Your task to perform on an android device: Add "usb-c to usb-a" to the cart on target Image 0: 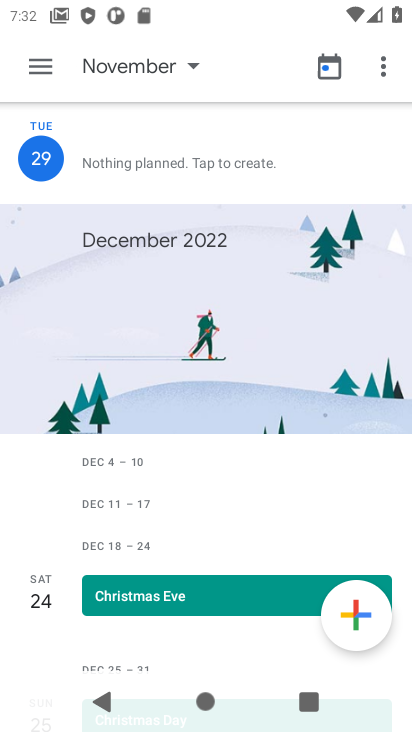
Step 0: press home button
Your task to perform on an android device: Add "usb-c to usb-a" to the cart on target Image 1: 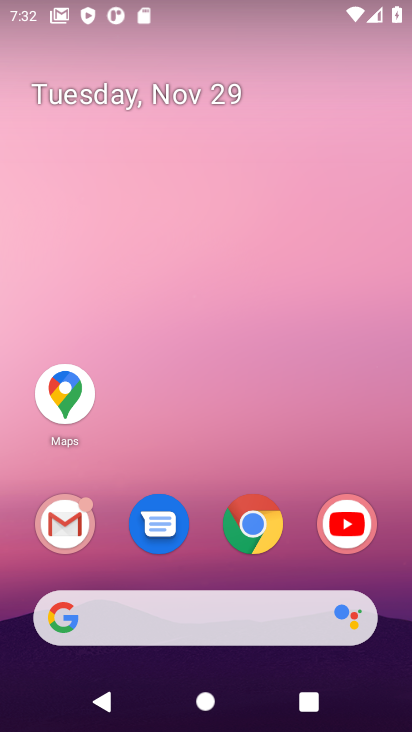
Step 1: click (259, 523)
Your task to perform on an android device: Add "usb-c to usb-a" to the cart on target Image 2: 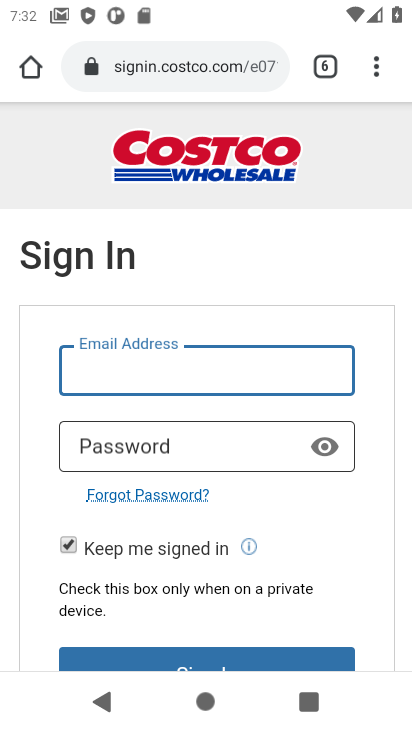
Step 2: click (153, 66)
Your task to perform on an android device: Add "usb-c to usb-a" to the cart on target Image 3: 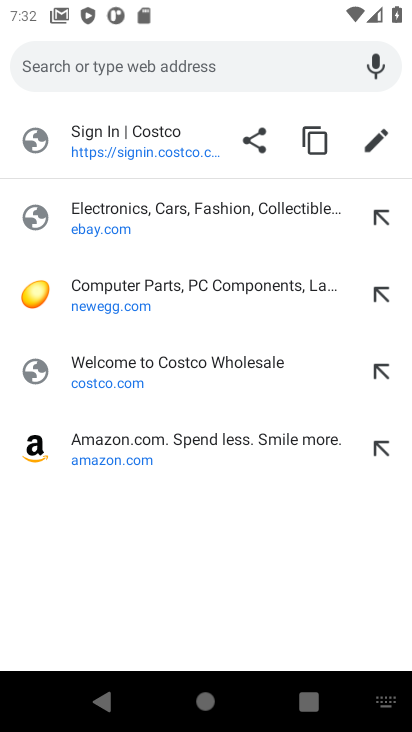
Step 3: type "target.com"
Your task to perform on an android device: Add "usb-c to usb-a" to the cart on target Image 4: 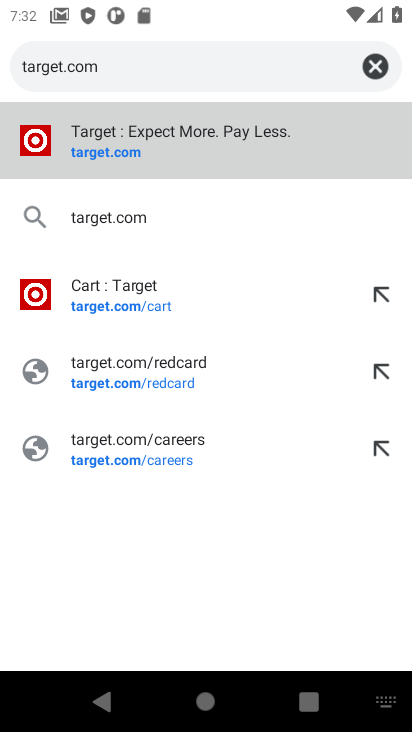
Step 4: click (80, 149)
Your task to perform on an android device: Add "usb-c to usb-a" to the cart on target Image 5: 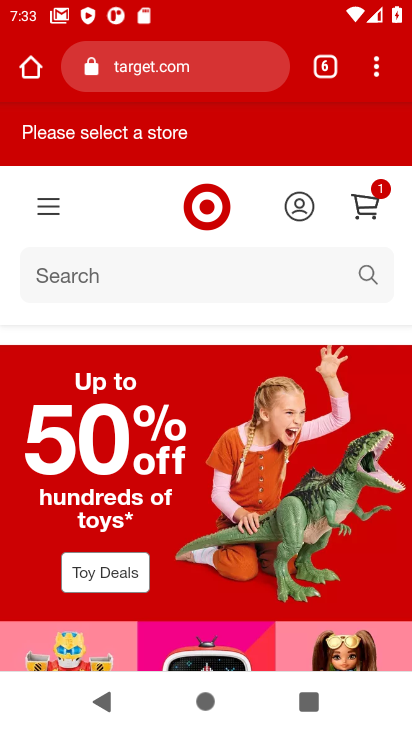
Step 5: click (83, 269)
Your task to perform on an android device: Add "usb-c to usb-a" to the cart on target Image 6: 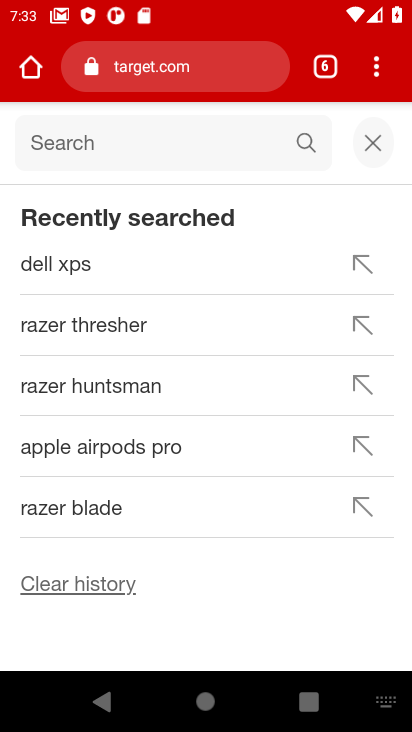
Step 6: type "usb-c to usb-a"
Your task to perform on an android device: Add "usb-c to usb-a" to the cart on target Image 7: 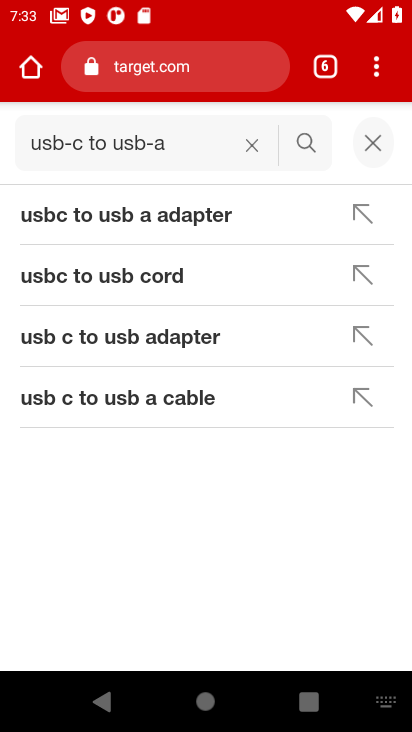
Step 7: click (306, 136)
Your task to perform on an android device: Add "usb-c to usb-a" to the cart on target Image 8: 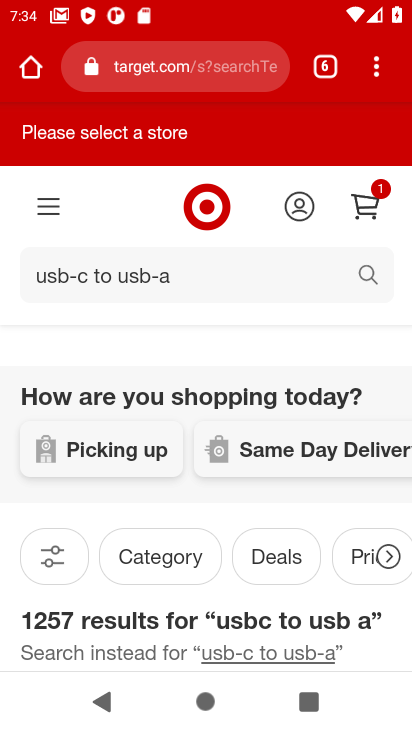
Step 8: drag from (194, 327) to (178, 181)
Your task to perform on an android device: Add "usb-c to usb-a" to the cart on target Image 9: 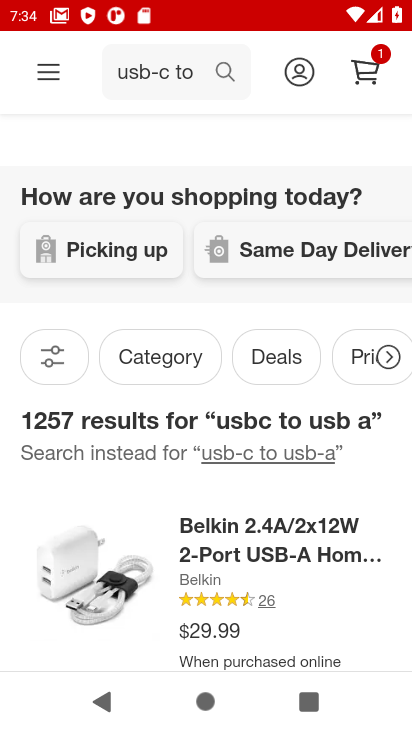
Step 9: drag from (243, 506) to (237, 344)
Your task to perform on an android device: Add "usb-c to usb-a" to the cart on target Image 10: 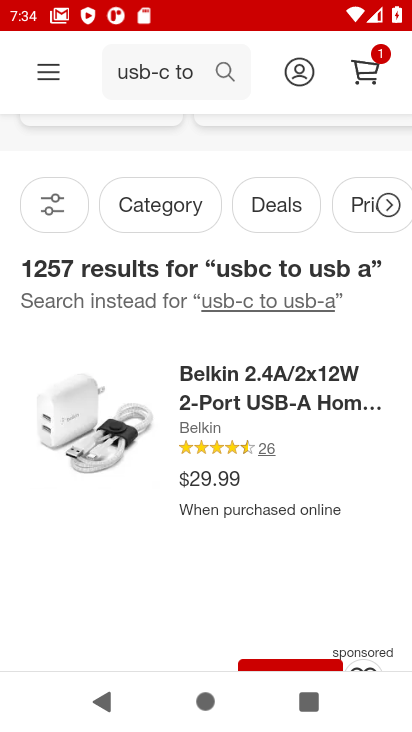
Step 10: drag from (220, 473) to (211, 303)
Your task to perform on an android device: Add "usb-c to usb-a" to the cart on target Image 11: 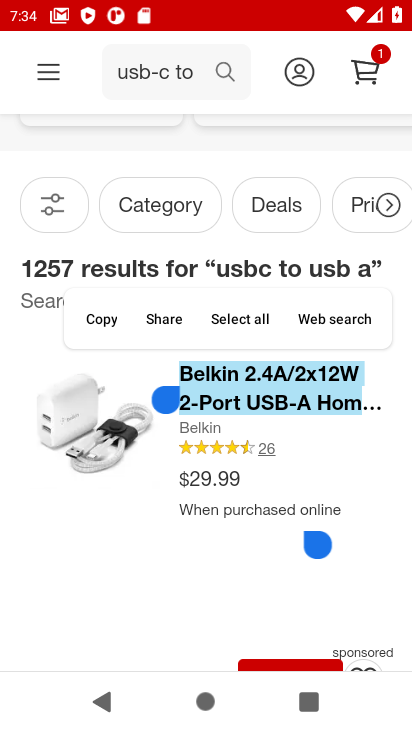
Step 11: drag from (374, 487) to (355, 198)
Your task to perform on an android device: Add "usb-c to usb-a" to the cart on target Image 12: 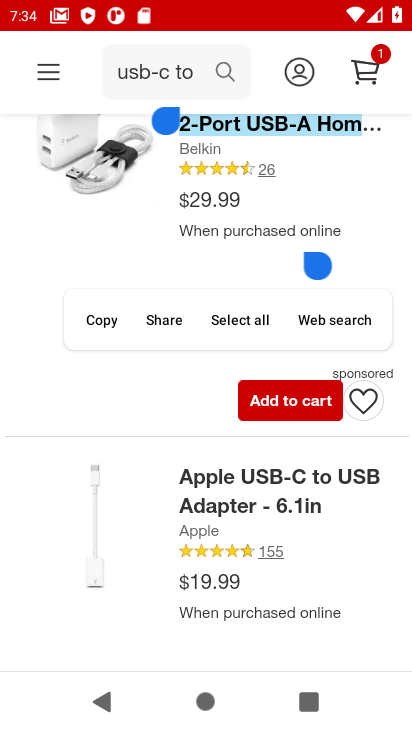
Step 12: drag from (322, 506) to (307, 325)
Your task to perform on an android device: Add "usb-c to usb-a" to the cart on target Image 13: 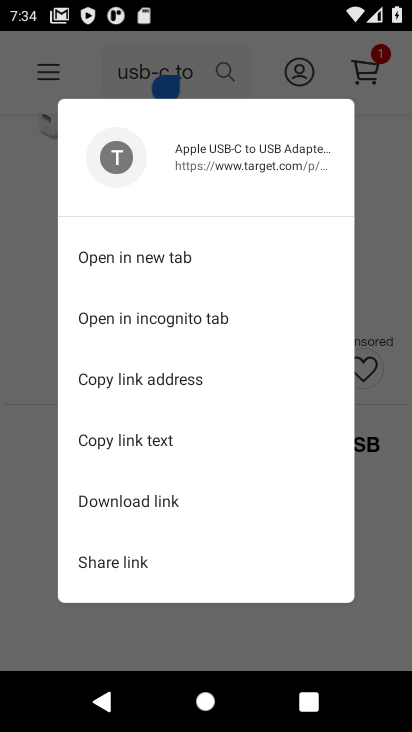
Step 13: click (369, 605)
Your task to perform on an android device: Add "usb-c to usb-a" to the cart on target Image 14: 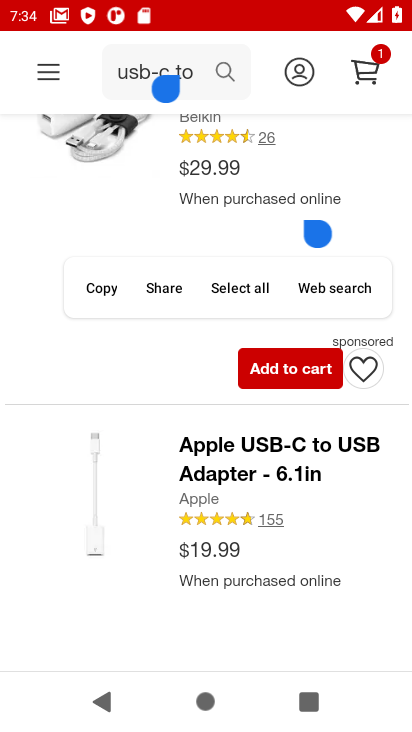
Step 14: drag from (350, 404) to (332, 136)
Your task to perform on an android device: Add "usb-c to usb-a" to the cart on target Image 15: 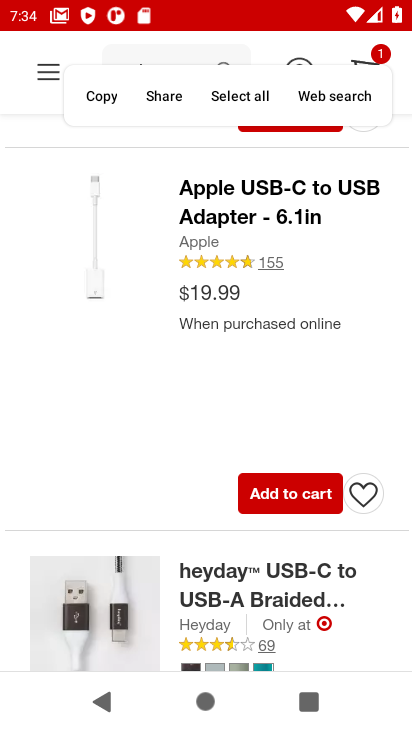
Step 15: drag from (370, 602) to (347, 297)
Your task to perform on an android device: Add "usb-c to usb-a" to the cart on target Image 16: 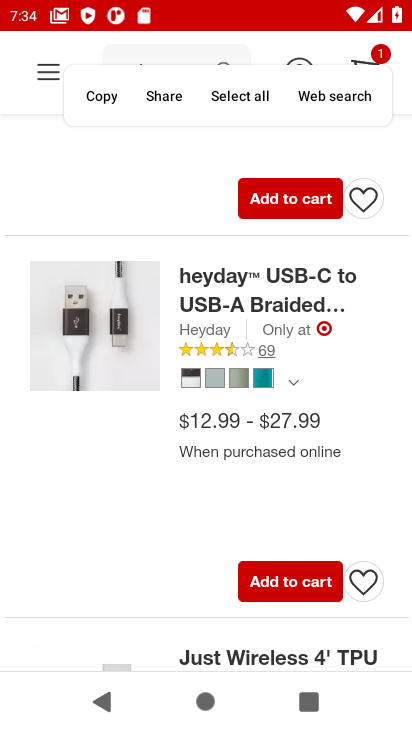
Step 16: click (279, 581)
Your task to perform on an android device: Add "usb-c to usb-a" to the cart on target Image 17: 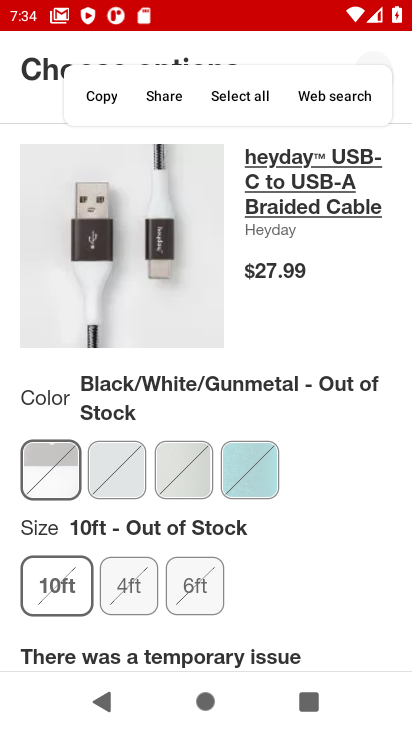
Step 17: drag from (319, 451) to (322, 259)
Your task to perform on an android device: Add "usb-c to usb-a" to the cart on target Image 18: 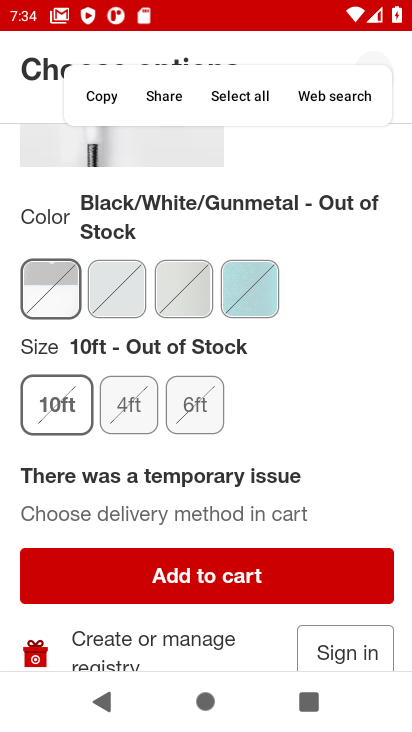
Step 18: click (208, 577)
Your task to perform on an android device: Add "usb-c to usb-a" to the cart on target Image 19: 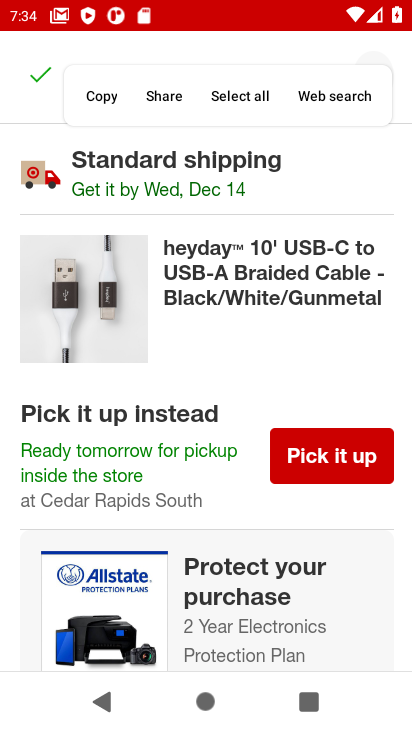
Step 19: task complete